Your task to perform on an android device: make emails show in primary in the gmail app Image 0: 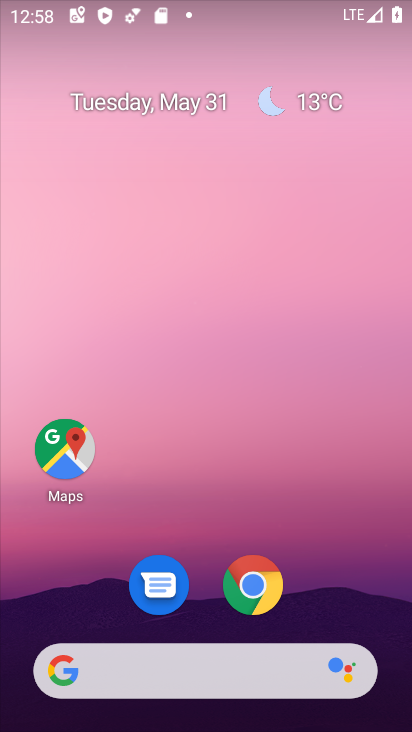
Step 0: drag from (201, 503) to (205, 36)
Your task to perform on an android device: make emails show in primary in the gmail app Image 1: 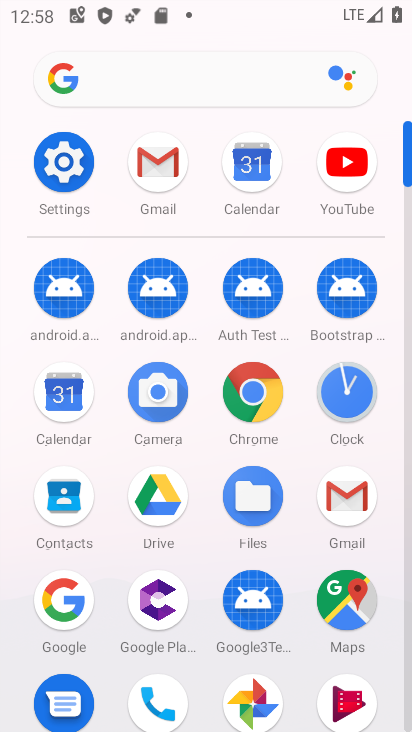
Step 1: click (172, 168)
Your task to perform on an android device: make emails show in primary in the gmail app Image 2: 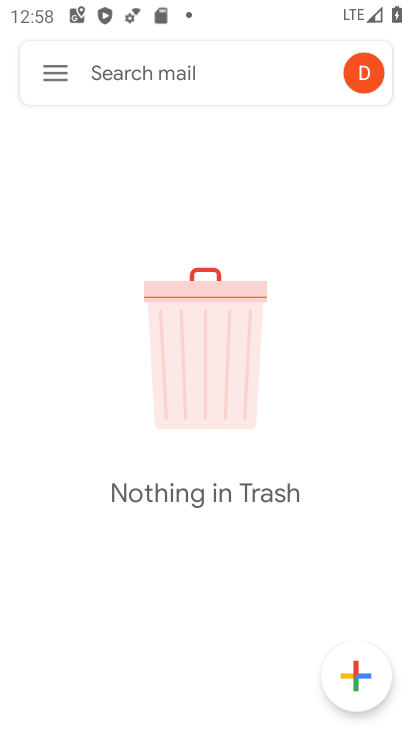
Step 2: click (65, 81)
Your task to perform on an android device: make emails show in primary in the gmail app Image 3: 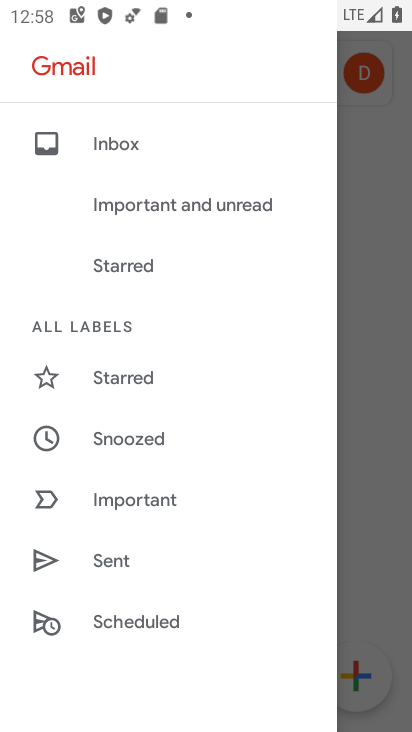
Step 3: drag from (191, 550) to (195, 132)
Your task to perform on an android device: make emails show in primary in the gmail app Image 4: 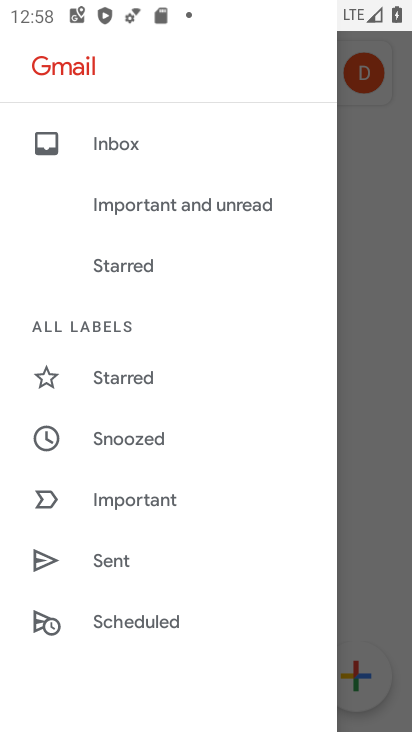
Step 4: drag from (158, 576) to (143, 61)
Your task to perform on an android device: make emails show in primary in the gmail app Image 5: 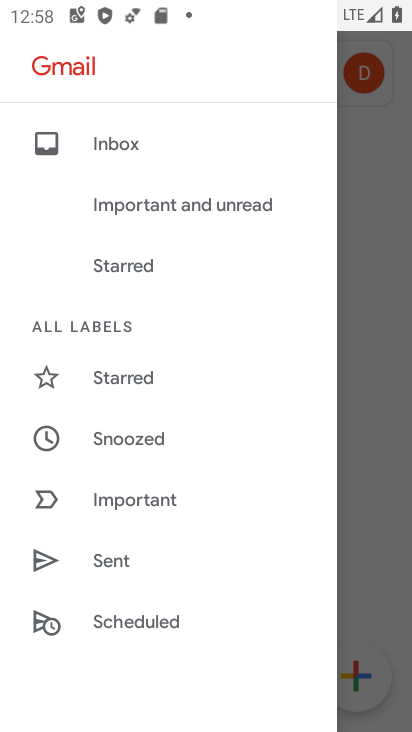
Step 5: drag from (208, 585) to (280, 104)
Your task to perform on an android device: make emails show in primary in the gmail app Image 6: 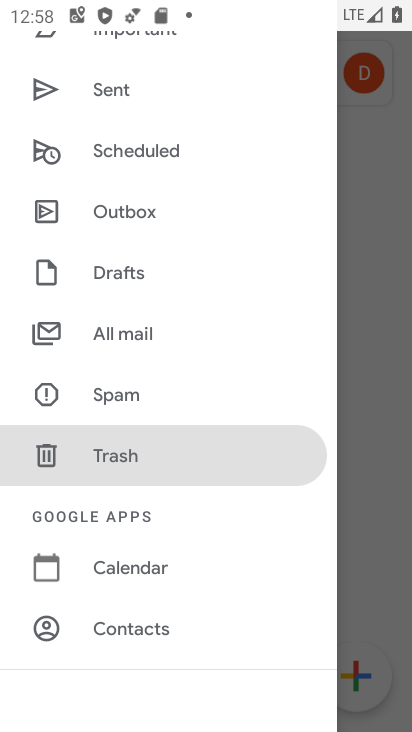
Step 6: drag from (228, 547) to (225, 180)
Your task to perform on an android device: make emails show in primary in the gmail app Image 7: 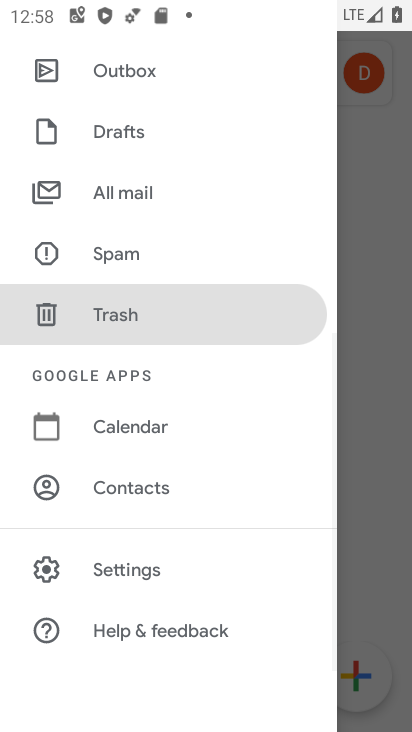
Step 7: click (136, 557)
Your task to perform on an android device: make emails show in primary in the gmail app Image 8: 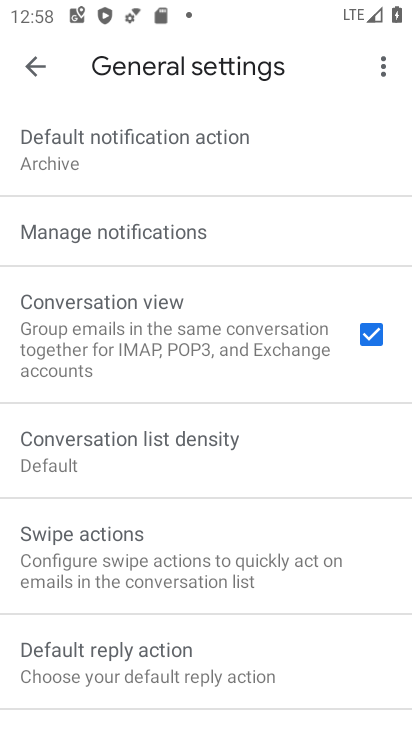
Step 8: click (34, 58)
Your task to perform on an android device: make emails show in primary in the gmail app Image 9: 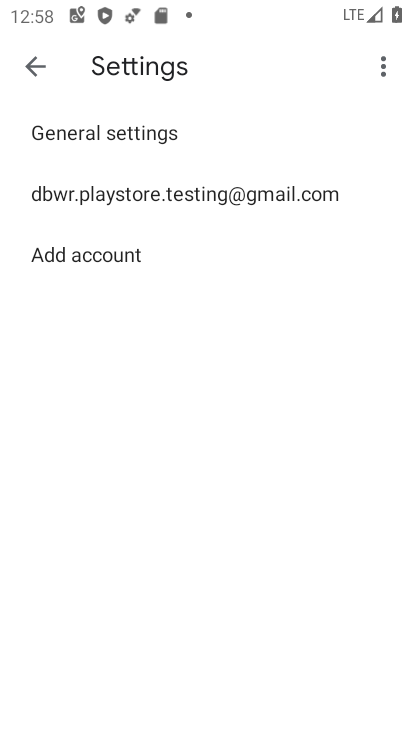
Step 9: click (96, 190)
Your task to perform on an android device: make emails show in primary in the gmail app Image 10: 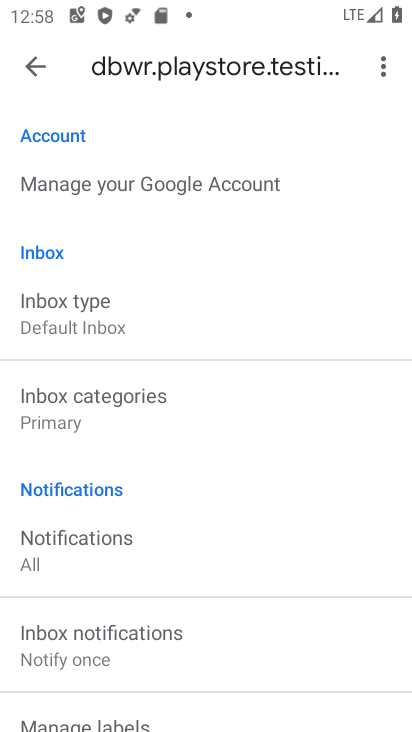
Step 10: click (111, 416)
Your task to perform on an android device: make emails show in primary in the gmail app Image 11: 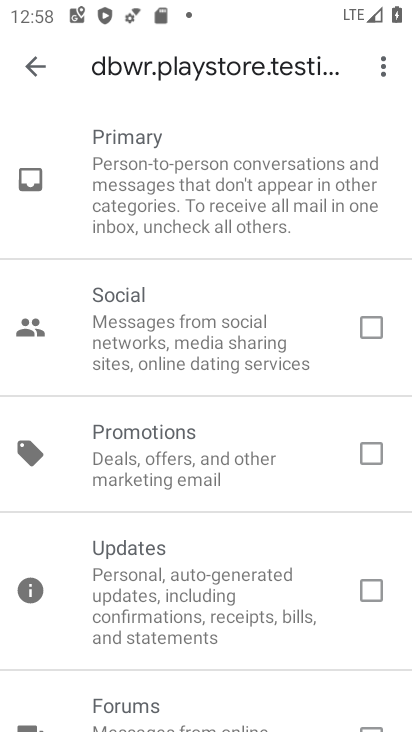
Step 11: task complete